Your task to perform on an android device: Go to Amazon Image 0: 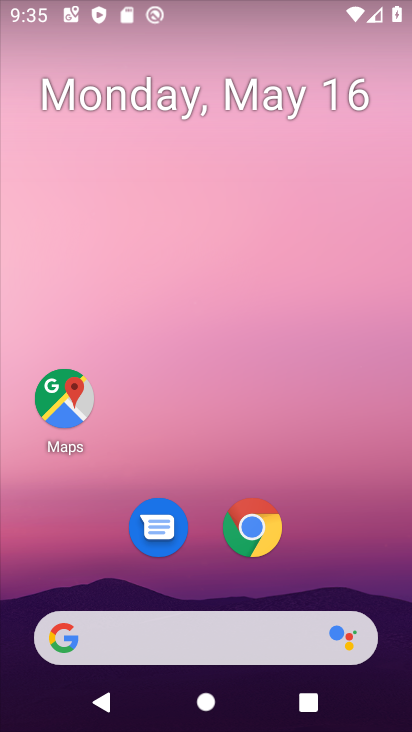
Step 0: click (254, 528)
Your task to perform on an android device: Go to Amazon Image 1: 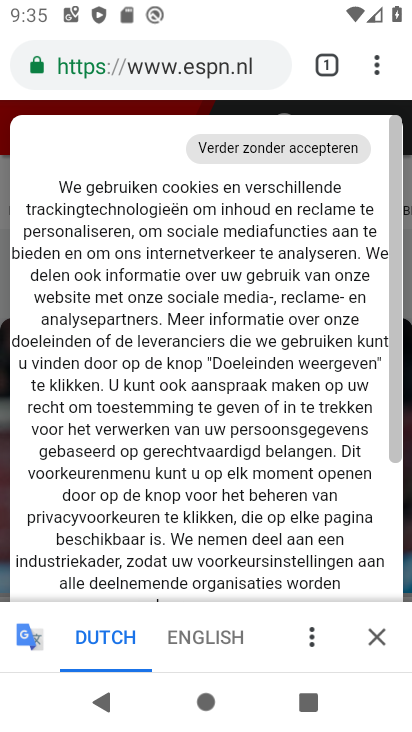
Step 1: click (171, 71)
Your task to perform on an android device: Go to Amazon Image 2: 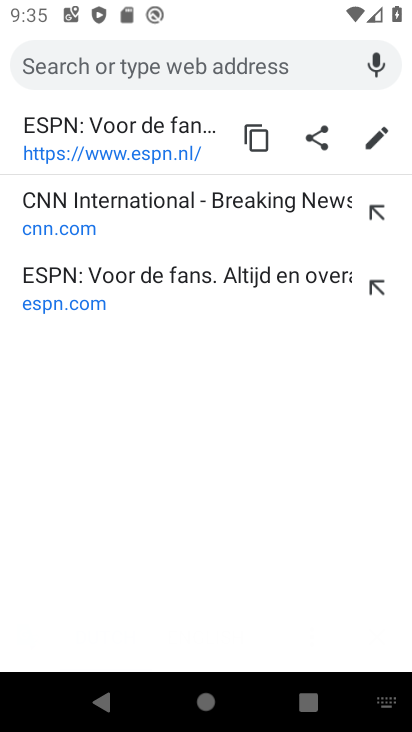
Step 2: type "amazon"
Your task to perform on an android device: Go to Amazon Image 3: 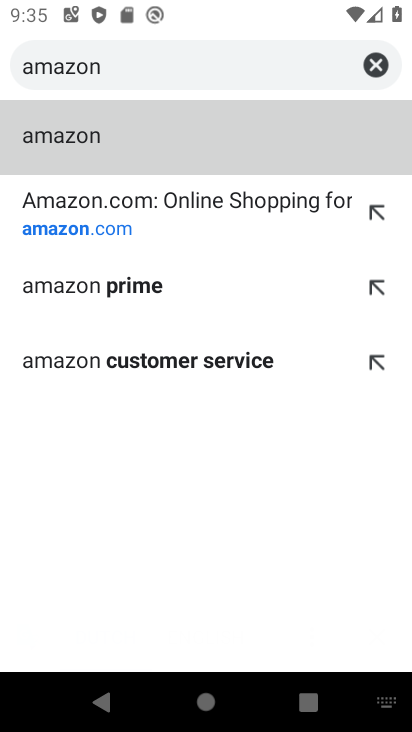
Step 3: click (77, 134)
Your task to perform on an android device: Go to Amazon Image 4: 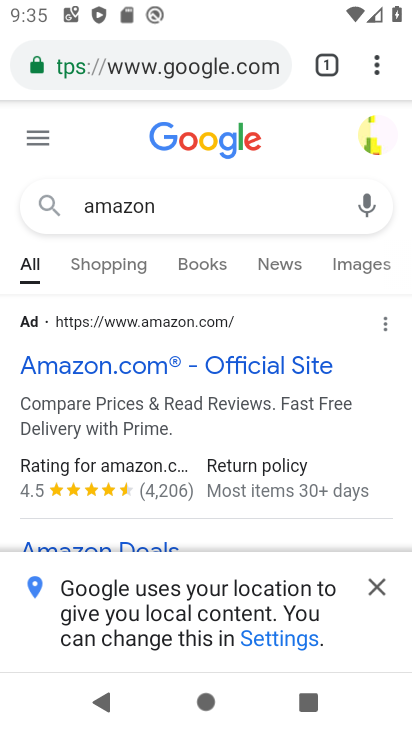
Step 4: click (74, 376)
Your task to perform on an android device: Go to Amazon Image 5: 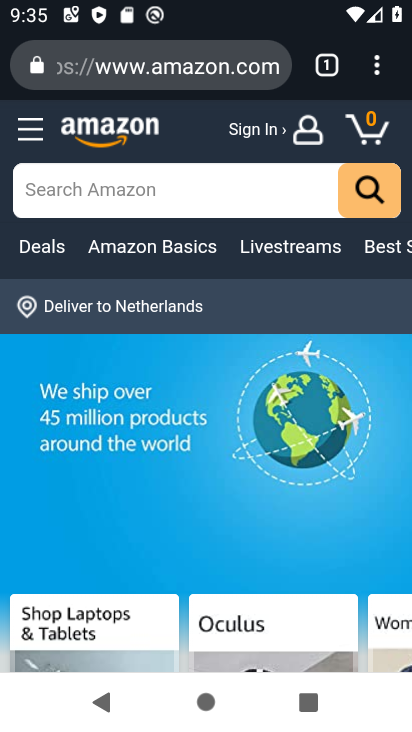
Step 5: task complete